Your task to perform on an android device: toggle translation in the chrome app Image 0: 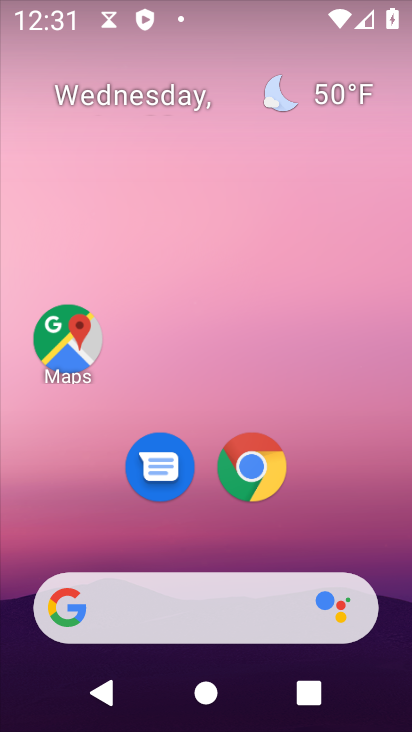
Step 0: click (251, 473)
Your task to perform on an android device: toggle translation in the chrome app Image 1: 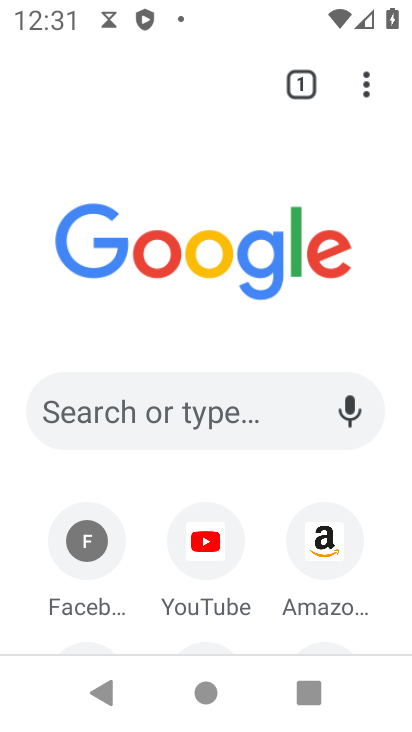
Step 1: click (370, 72)
Your task to perform on an android device: toggle translation in the chrome app Image 2: 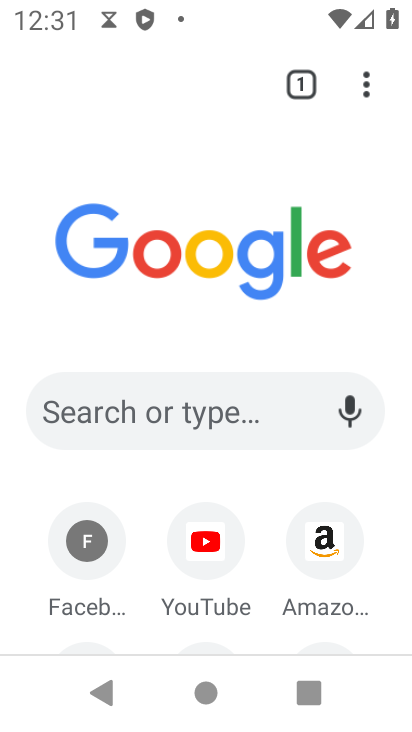
Step 2: click (368, 81)
Your task to perform on an android device: toggle translation in the chrome app Image 3: 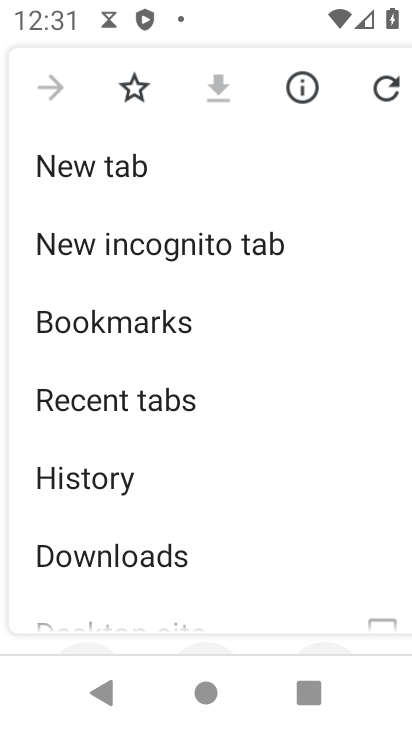
Step 3: drag from (200, 501) to (209, 280)
Your task to perform on an android device: toggle translation in the chrome app Image 4: 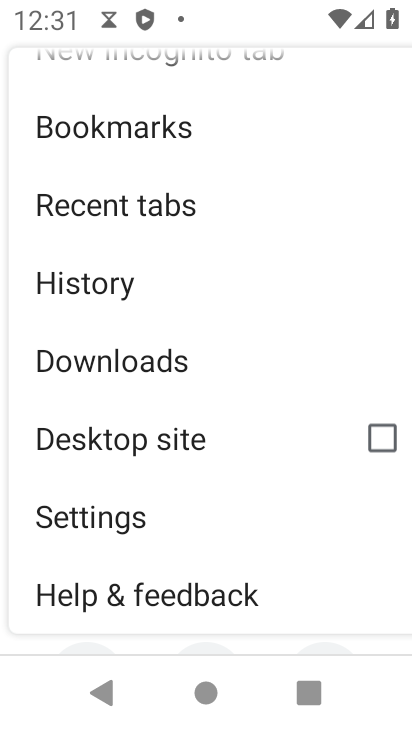
Step 4: click (138, 524)
Your task to perform on an android device: toggle translation in the chrome app Image 5: 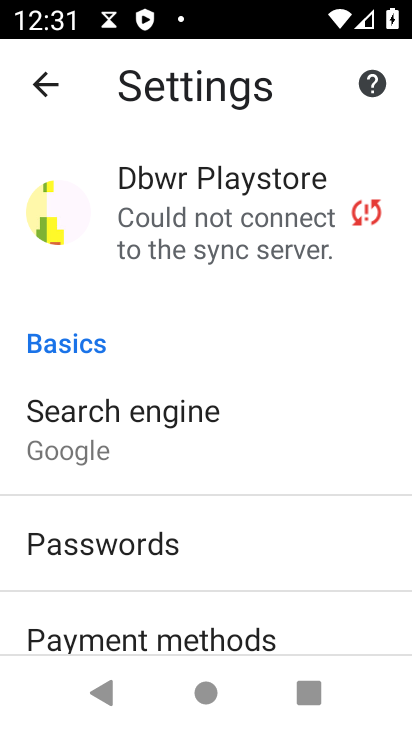
Step 5: drag from (137, 433) to (196, 182)
Your task to perform on an android device: toggle translation in the chrome app Image 6: 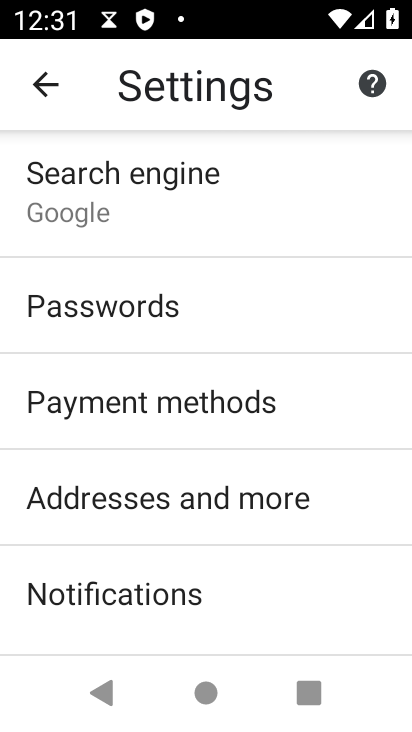
Step 6: drag from (180, 357) to (210, 197)
Your task to perform on an android device: toggle translation in the chrome app Image 7: 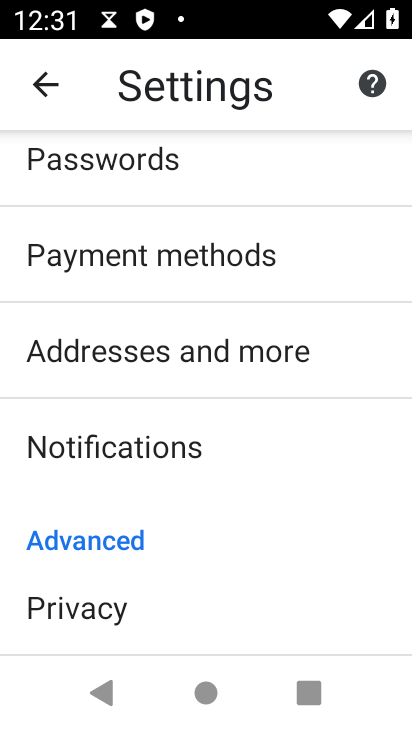
Step 7: drag from (114, 539) to (192, 107)
Your task to perform on an android device: toggle translation in the chrome app Image 8: 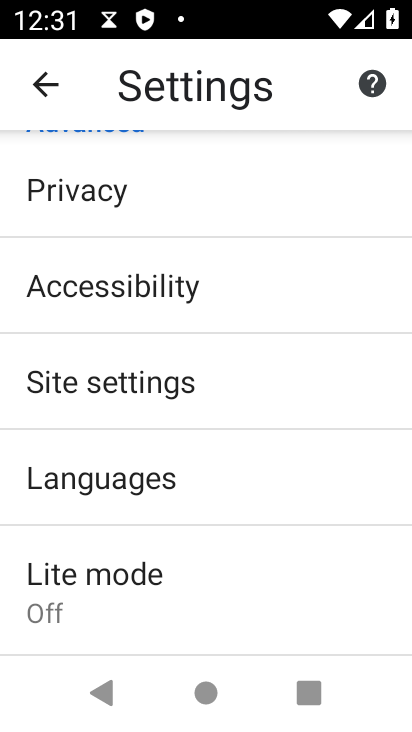
Step 8: click (133, 455)
Your task to perform on an android device: toggle translation in the chrome app Image 9: 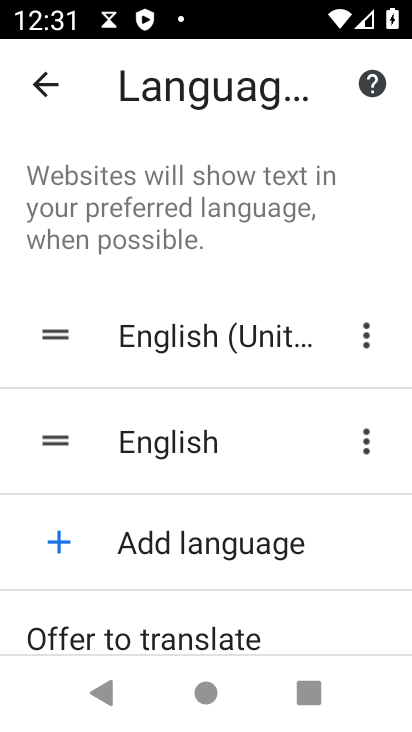
Step 9: drag from (161, 544) to (201, 296)
Your task to perform on an android device: toggle translation in the chrome app Image 10: 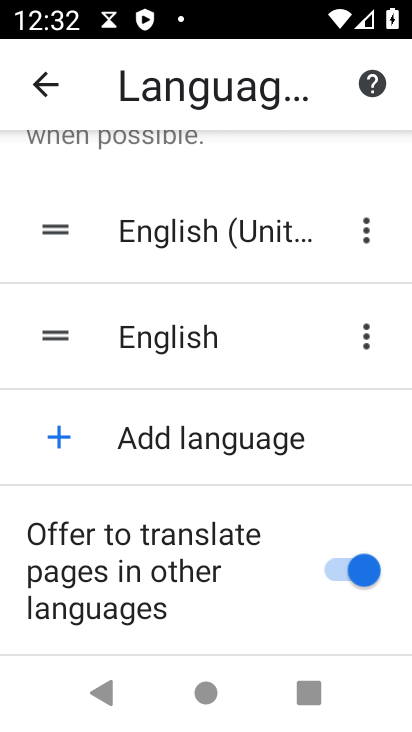
Step 10: click (328, 574)
Your task to perform on an android device: toggle translation in the chrome app Image 11: 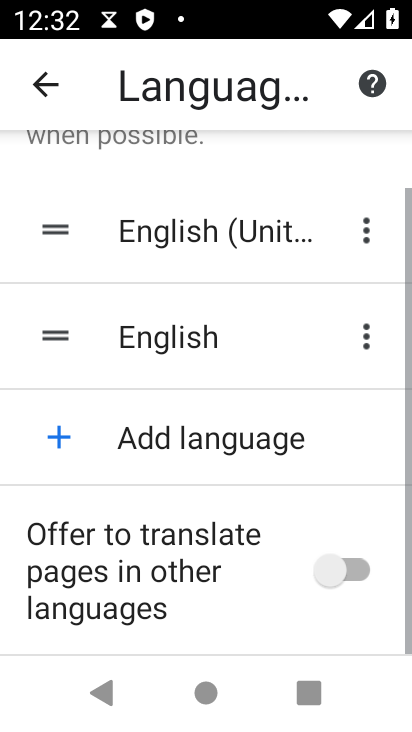
Step 11: click (328, 574)
Your task to perform on an android device: toggle translation in the chrome app Image 12: 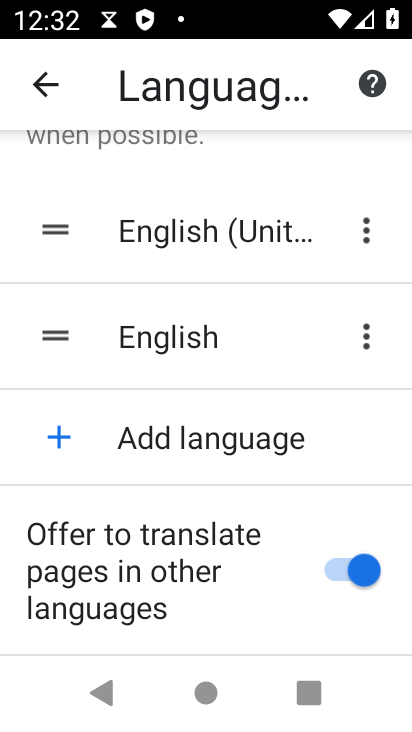
Step 12: task complete